Your task to perform on an android device: toggle location history Image 0: 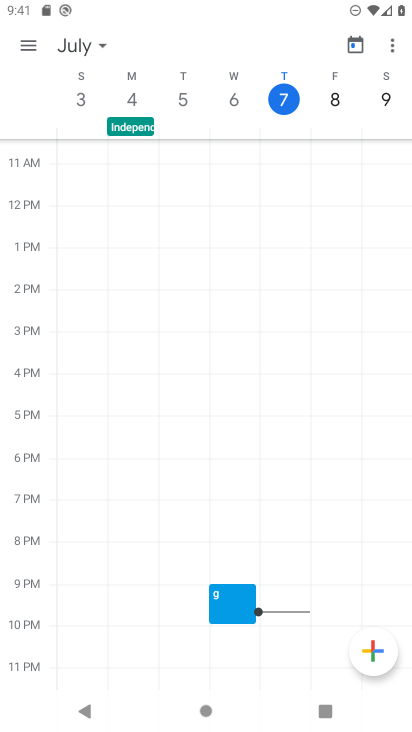
Step 0: press home button
Your task to perform on an android device: toggle location history Image 1: 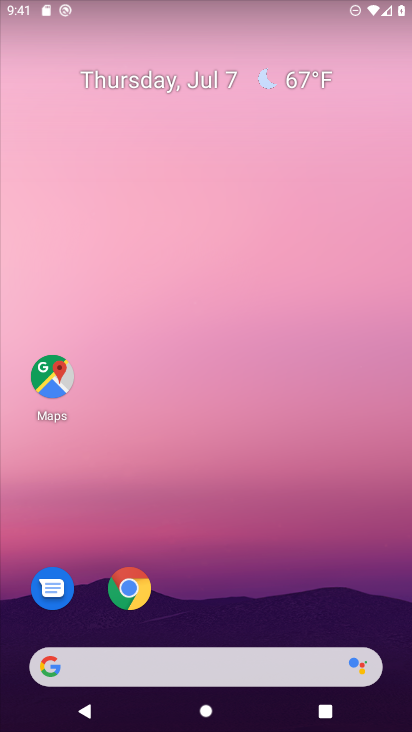
Step 1: drag from (229, 612) to (249, 3)
Your task to perform on an android device: toggle location history Image 2: 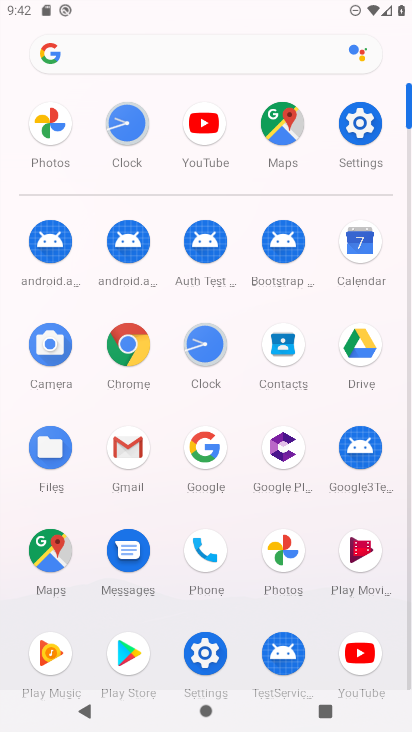
Step 2: click (357, 122)
Your task to perform on an android device: toggle location history Image 3: 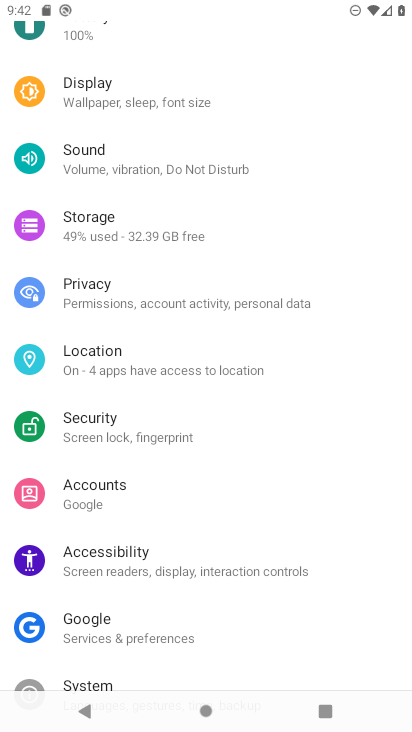
Step 3: click (116, 371)
Your task to perform on an android device: toggle location history Image 4: 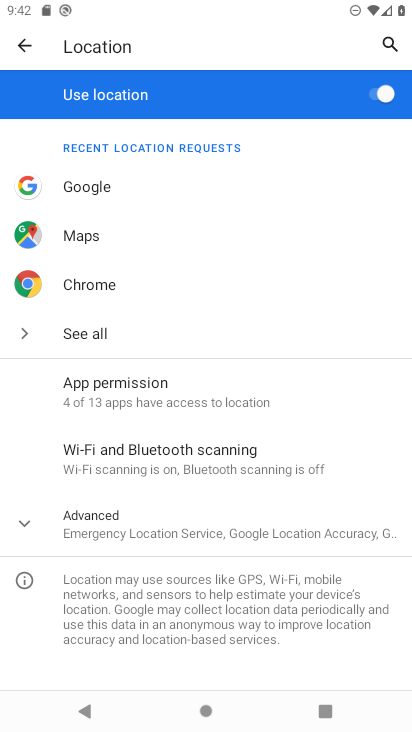
Step 4: click (127, 527)
Your task to perform on an android device: toggle location history Image 5: 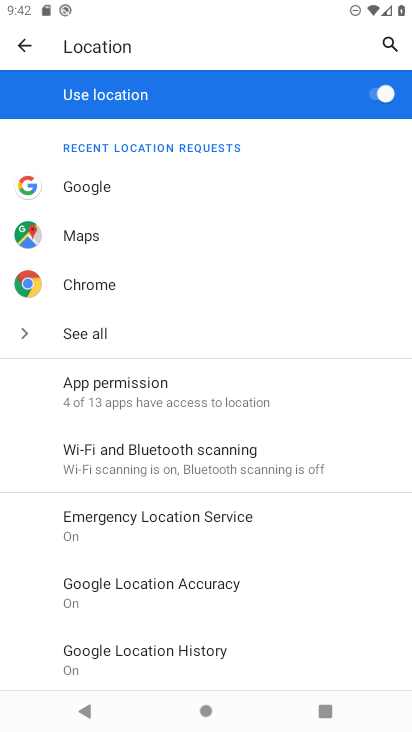
Step 5: click (130, 652)
Your task to perform on an android device: toggle location history Image 6: 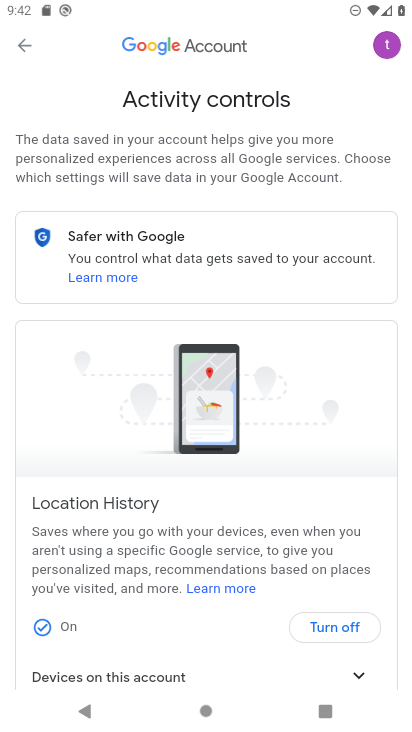
Step 6: click (332, 625)
Your task to perform on an android device: toggle location history Image 7: 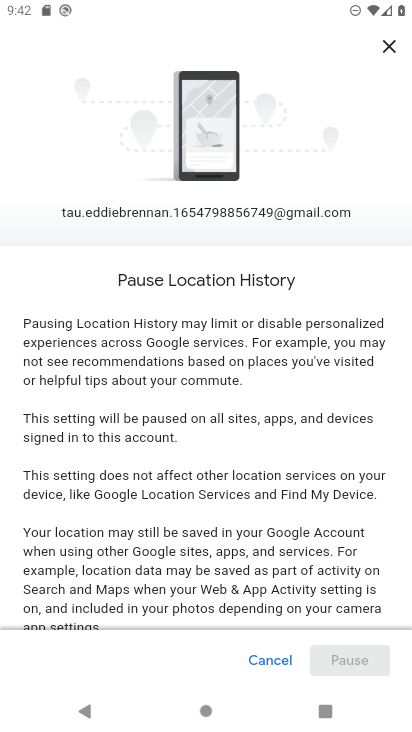
Step 7: drag from (247, 447) to (296, 346)
Your task to perform on an android device: toggle location history Image 8: 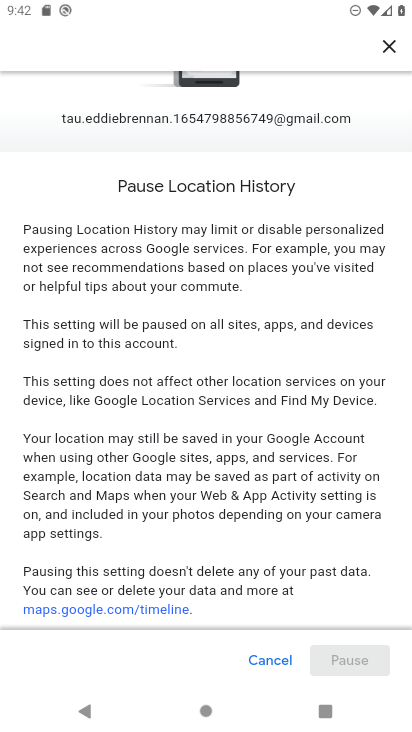
Step 8: drag from (181, 530) to (302, 381)
Your task to perform on an android device: toggle location history Image 9: 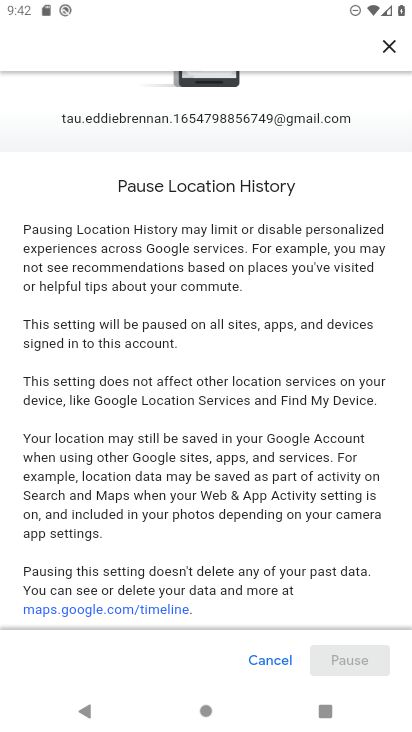
Step 9: drag from (203, 549) to (262, 389)
Your task to perform on an android device: toggle location history Image 10: 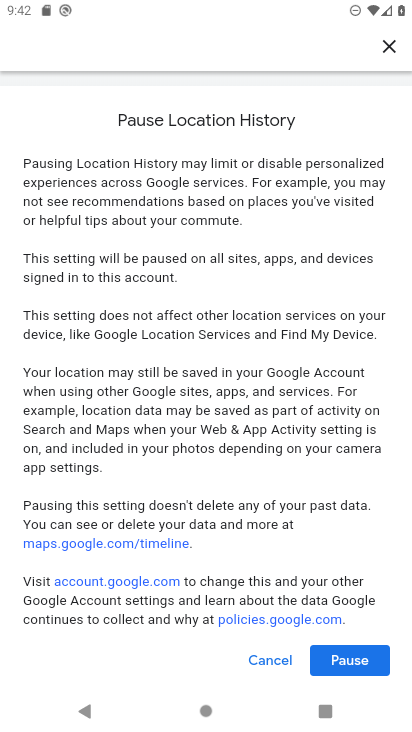
Step 10: click (344, 658)
Your task to perform on an android device: toggle location history Image 11: 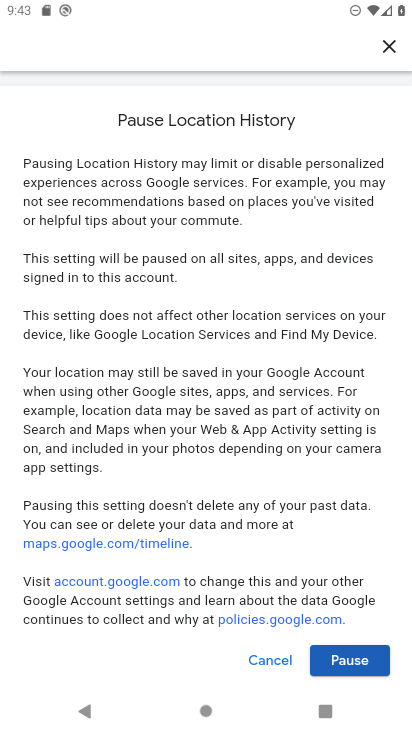
Step 11: click (344, 658)
Your task to perform on an android device: toggle location history Image 12: 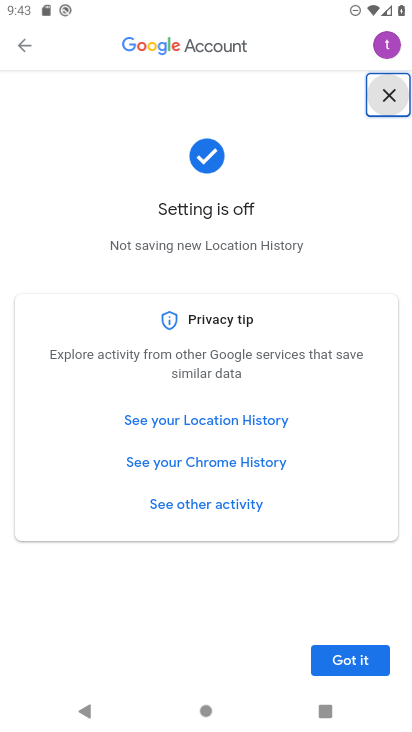
Step 12: click (351, 658)
Your task to perform on an android device: toggle location history Image 13: 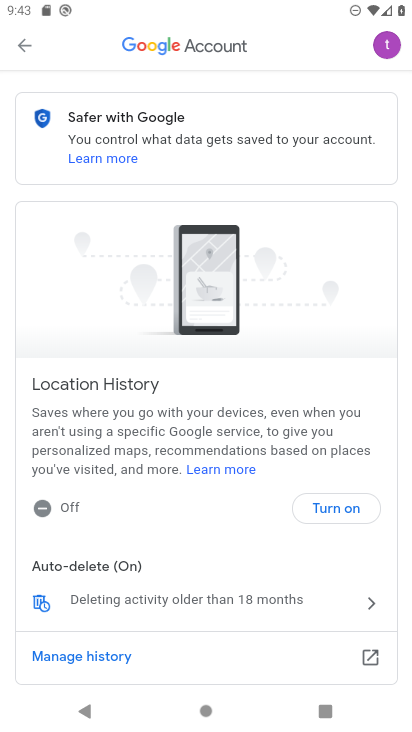
Step 13: task complete